Your task to perform on an android device: open app "McDonald's" Image 0: 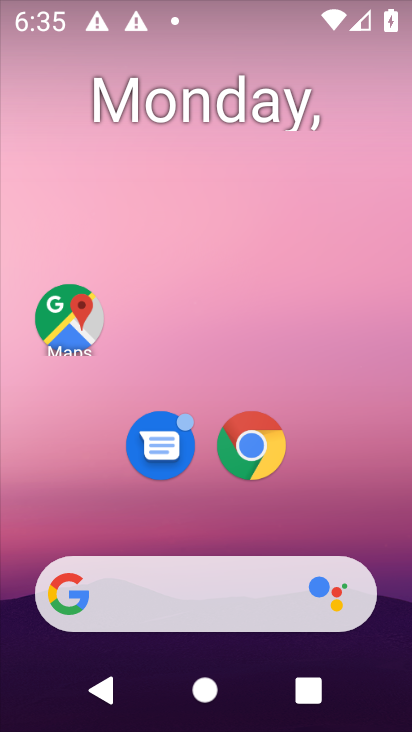
Step 0: drag from (376, 529) to (296, 3)
Your task to perform on an android device: open app "McDonald's" Image 1: 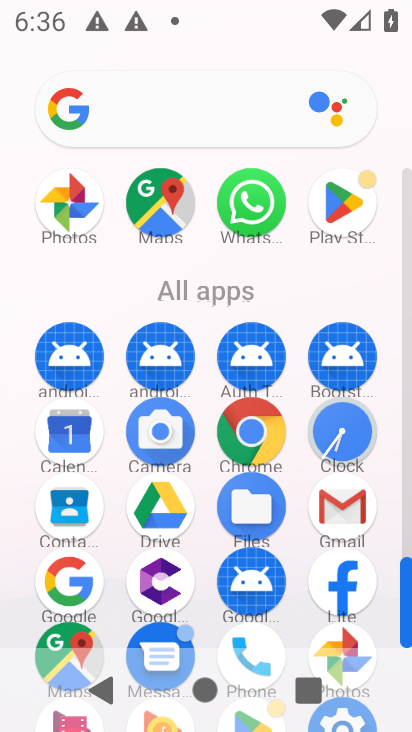
Step 1: click (353, 212)
Your task to perform on an android device: open app "McDonald's" Image 2: 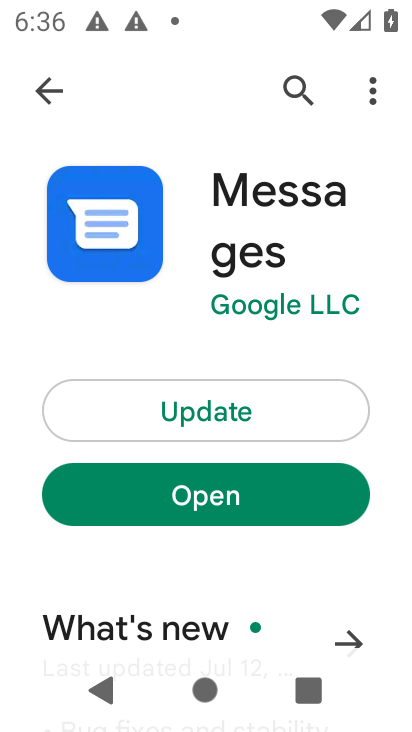
Step 2: press back button
Your task to perform on an android device: open app "McDonald's" Image 3: 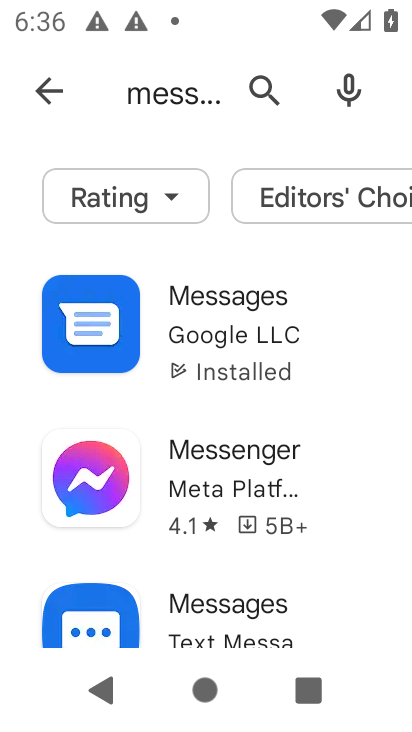
Step 3: click (134, 85)
Your task to perform on an android device: open app "McDonald's" Image 4: 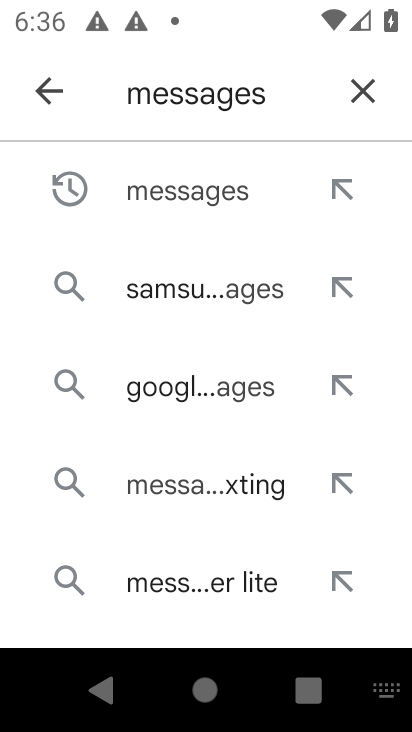
Step 4: press back button
Your task to perform on an android device: open app "McDonald's" Image 5: 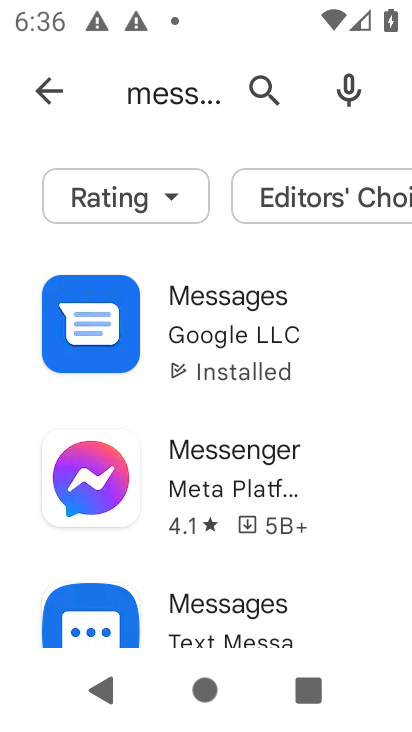
Step 5: press back button
Your task to perform on an android device: open app "McDonald's" Image 6: 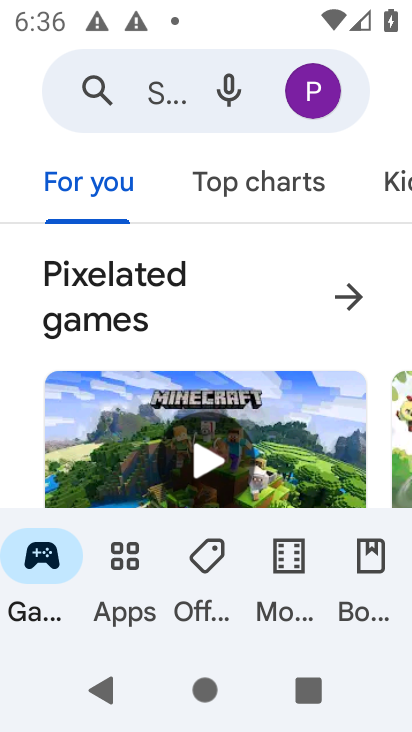
Step 6: click (168, 91)
Your task to perform on an android device: open app "McDonald's" Image 7: 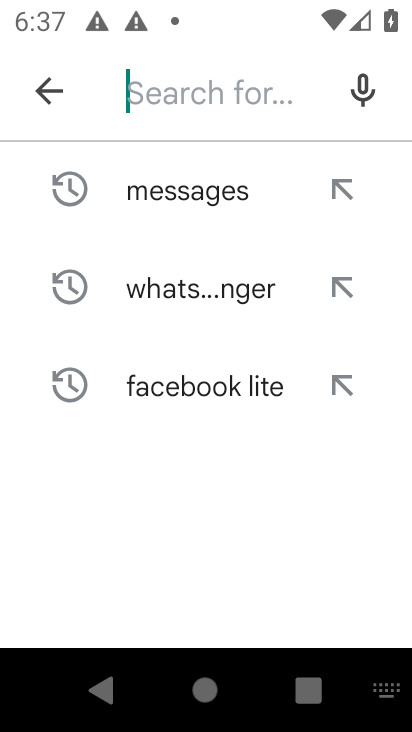
Step 7: type "McDonald's"
Your task to perform on an android device: open app "McDonald's" Image 8: 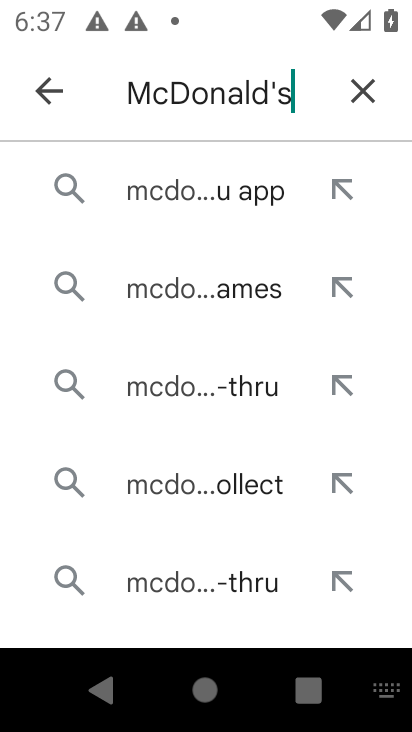
Step 8: click (169, 189)
Your task to perform on an android device: open app "McDonald's" Image 9: 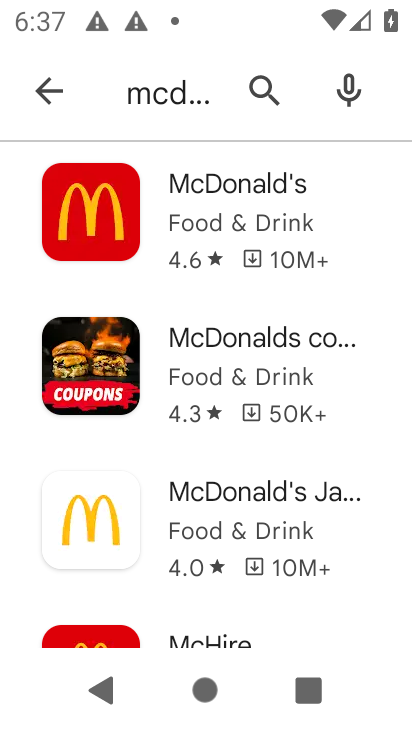
Step 9: task complete